Your task to perform on an android device: turn on airplane mode Image 0: 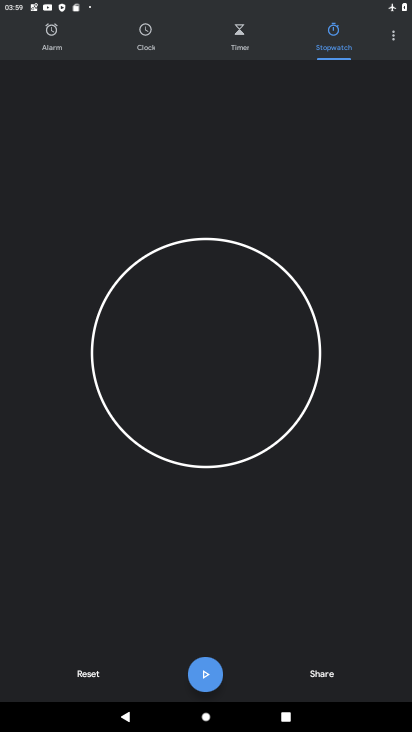
Step 0: press home button
Your task to perform on an android device: turn on airplane mode Image 1: 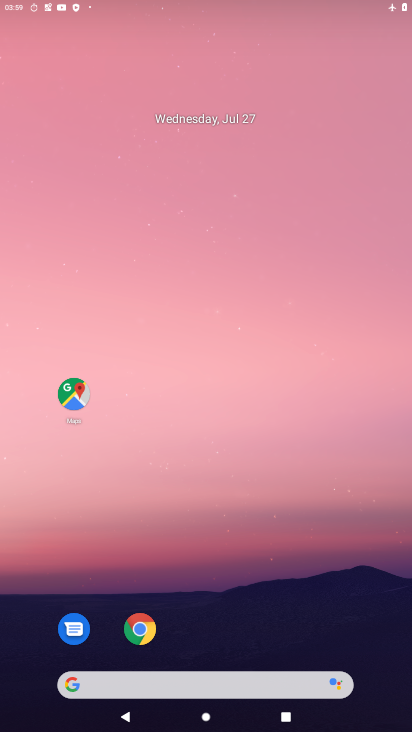
Step 1: drag from (190, 528) to (217, 24)
Your task to perform on an android device: turn on airplane mode Image 2: 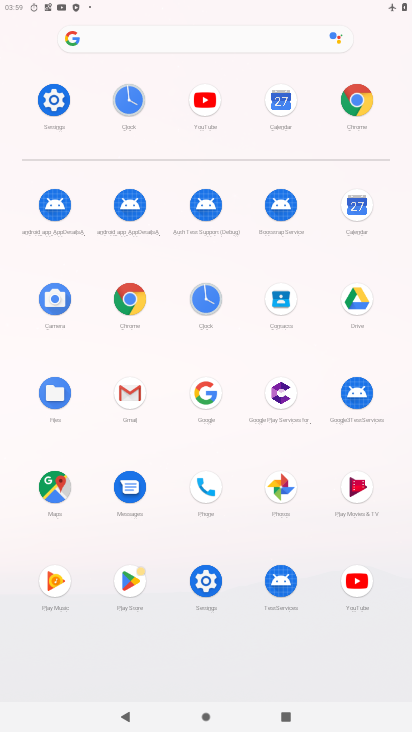
Step 2: click (54, 103)
Your task to perform on an android device: turn on airplane mode Image 3: 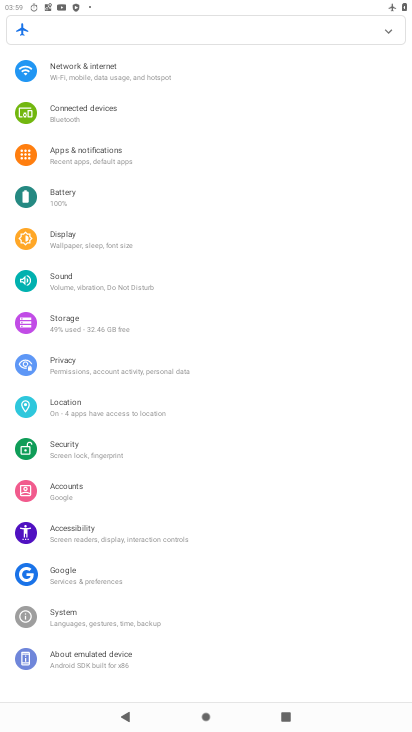
Step 3: click (116, 77)
Your task to perform on an android device: turn on airplane mode Image 4: 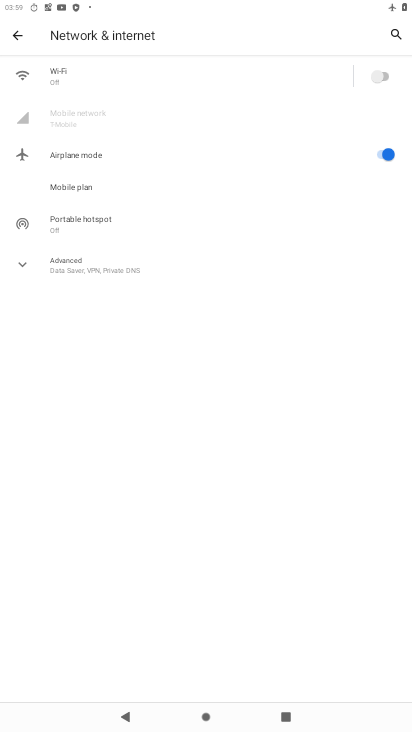
Step 4: task complete